Your task to perform on an android device: Show me popular games on the Play Store Image 0: 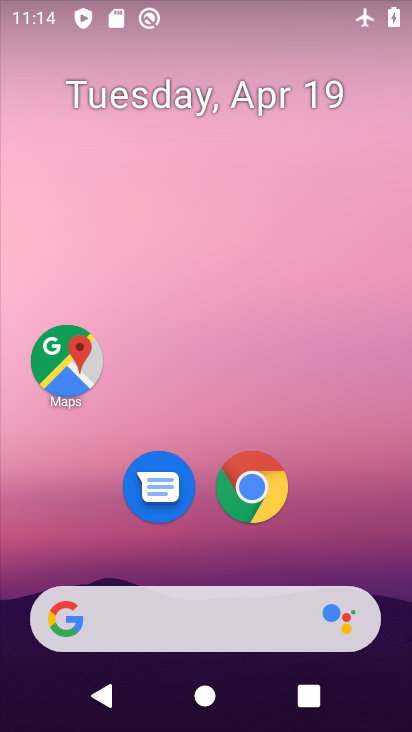
Step 0: drag from (368, 557) to (311, 16)
Your task to perform on an android device: Show me popular games on the Play Store Image 1: 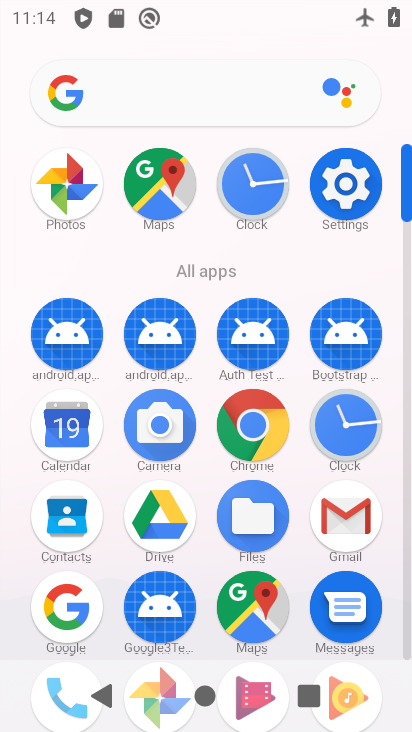
Step 1: click (405, 653)
Your task to perform on an android device: Show me popular games on the Play Store Image 2: 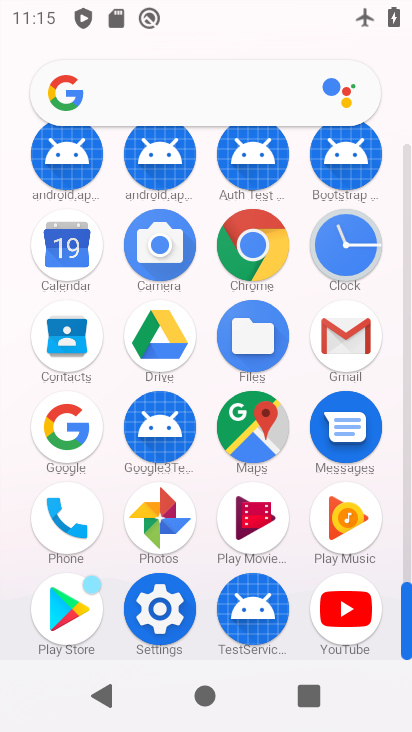
Step 2: click (52, 608)
Your task to perform on an android device: Show me popular games on the Play Store Image 3: 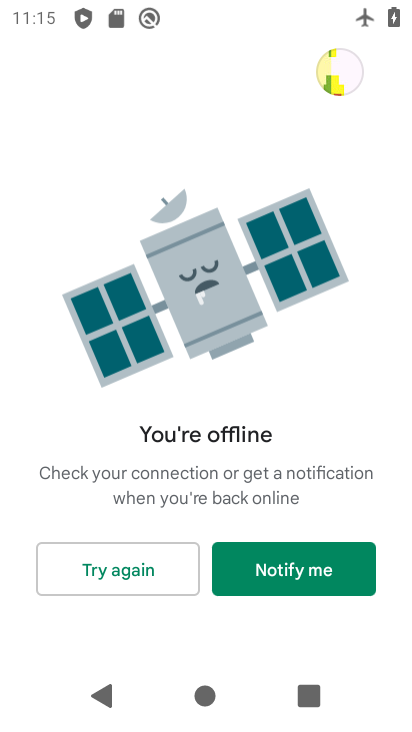
Step 3: click (118, 562)
Your task to perform on an android device: Show me popular games on the Play Store Image 4: 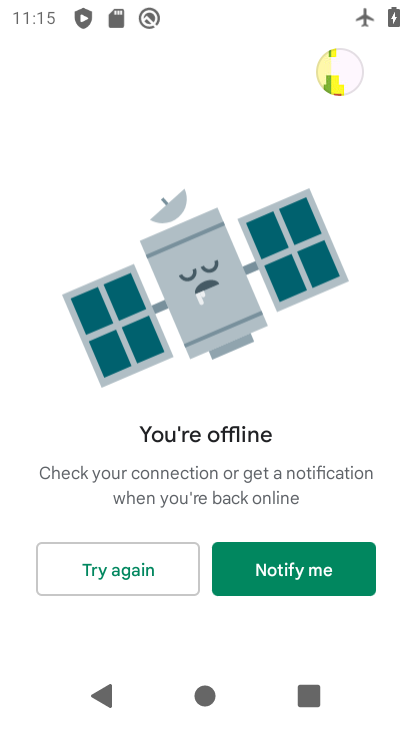
Step 4: task complete